Your task to perform on an android device: Go to Wikipedia Image 0: 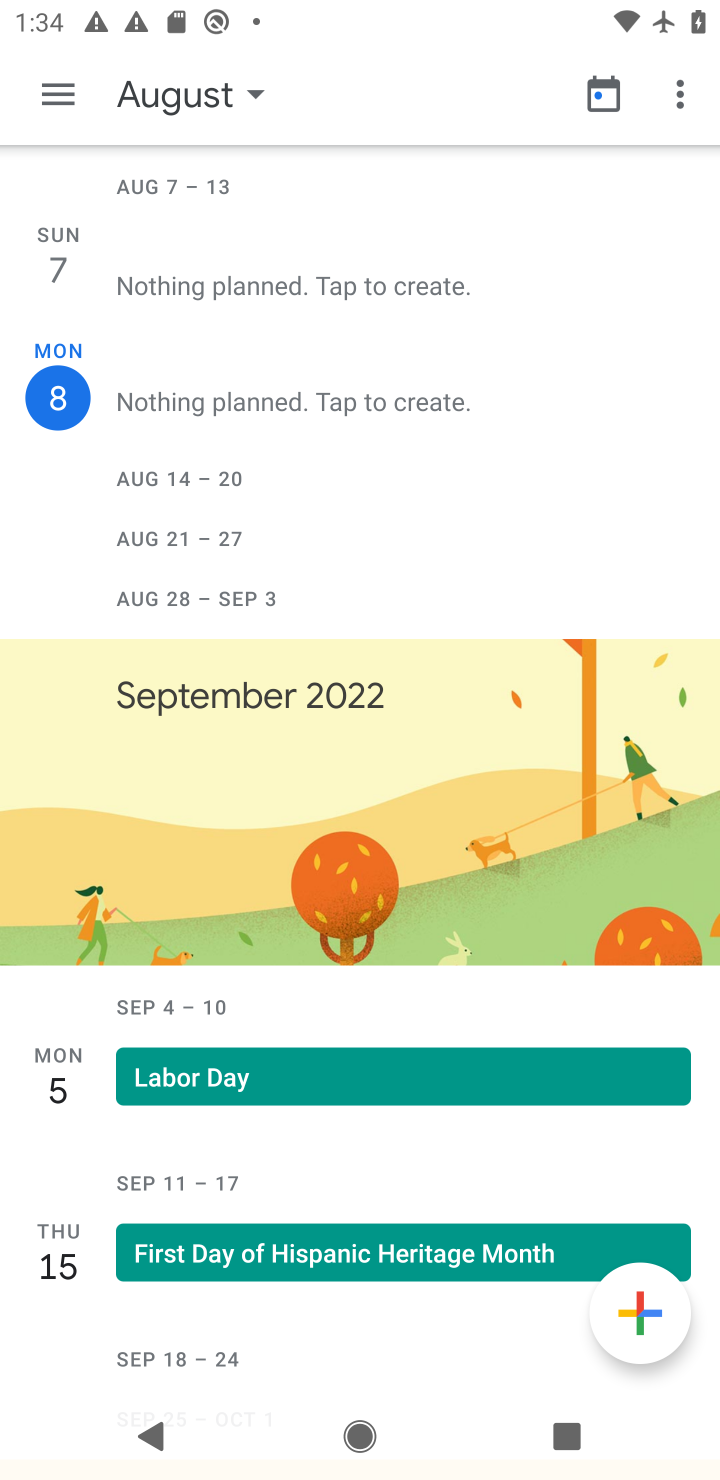
Step 0: press home button
Your task to perform on an android device: Go to Wikipedia Image 1: 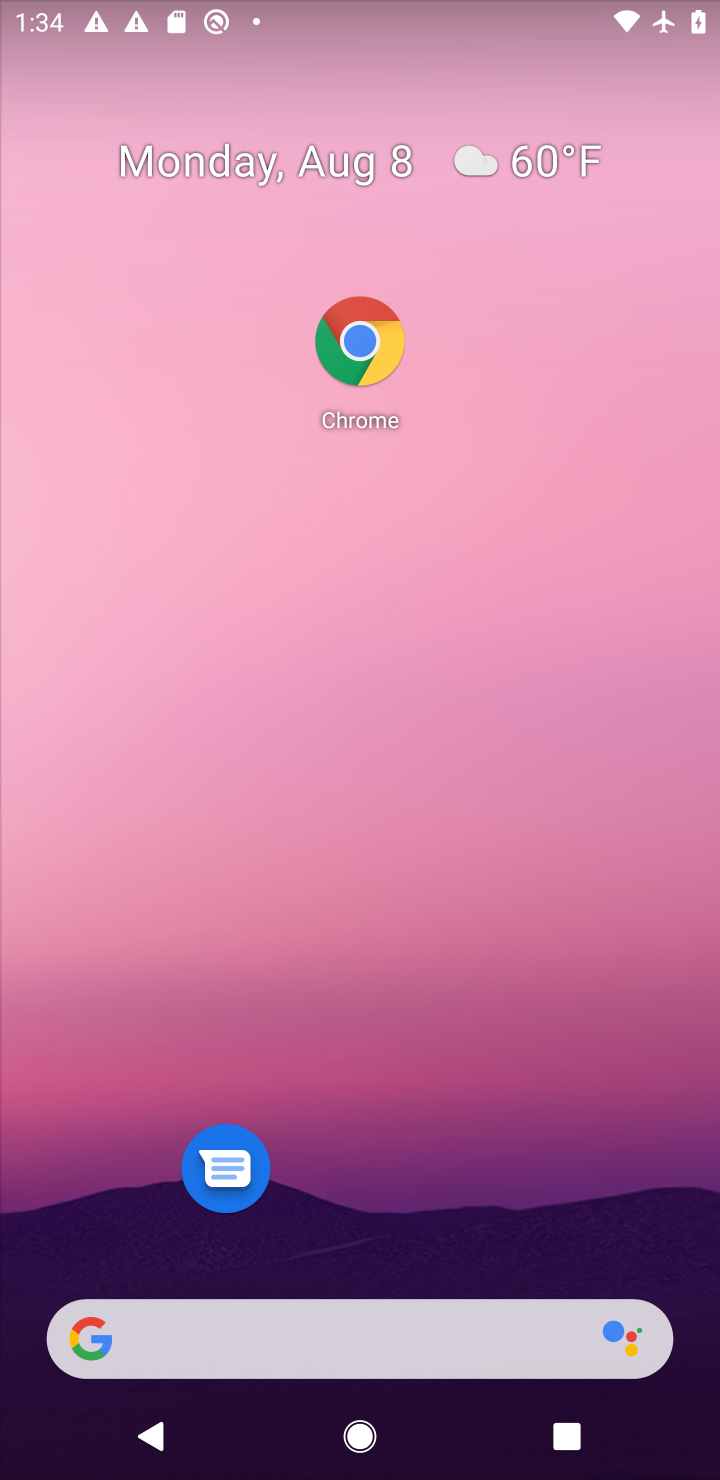
Step 1: drag from (488, 1228) to (558, 339)
Your task to perform on an android device: Go to Wikipedia Image 2: 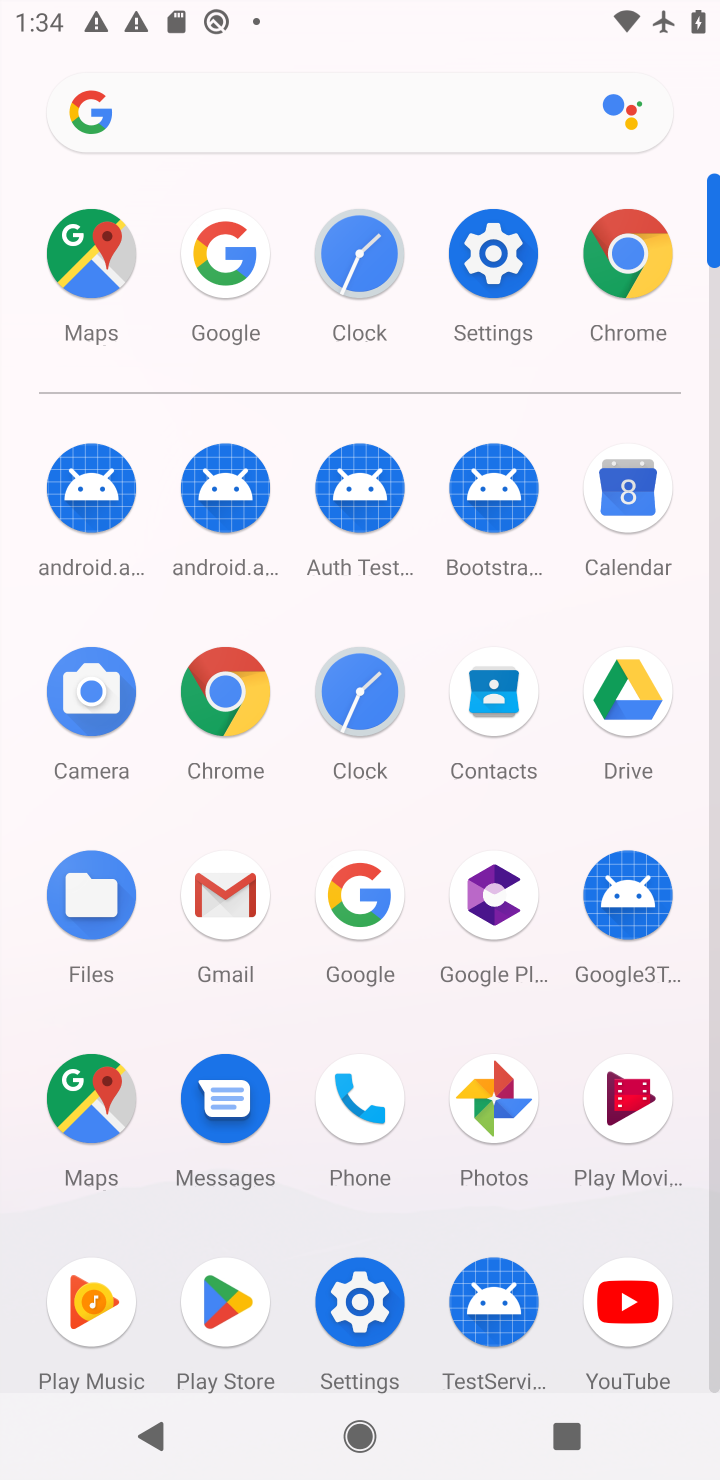
Step 2: click (491, 311)
Your task to perform on an android device: Go to Wikipedia Image 3: 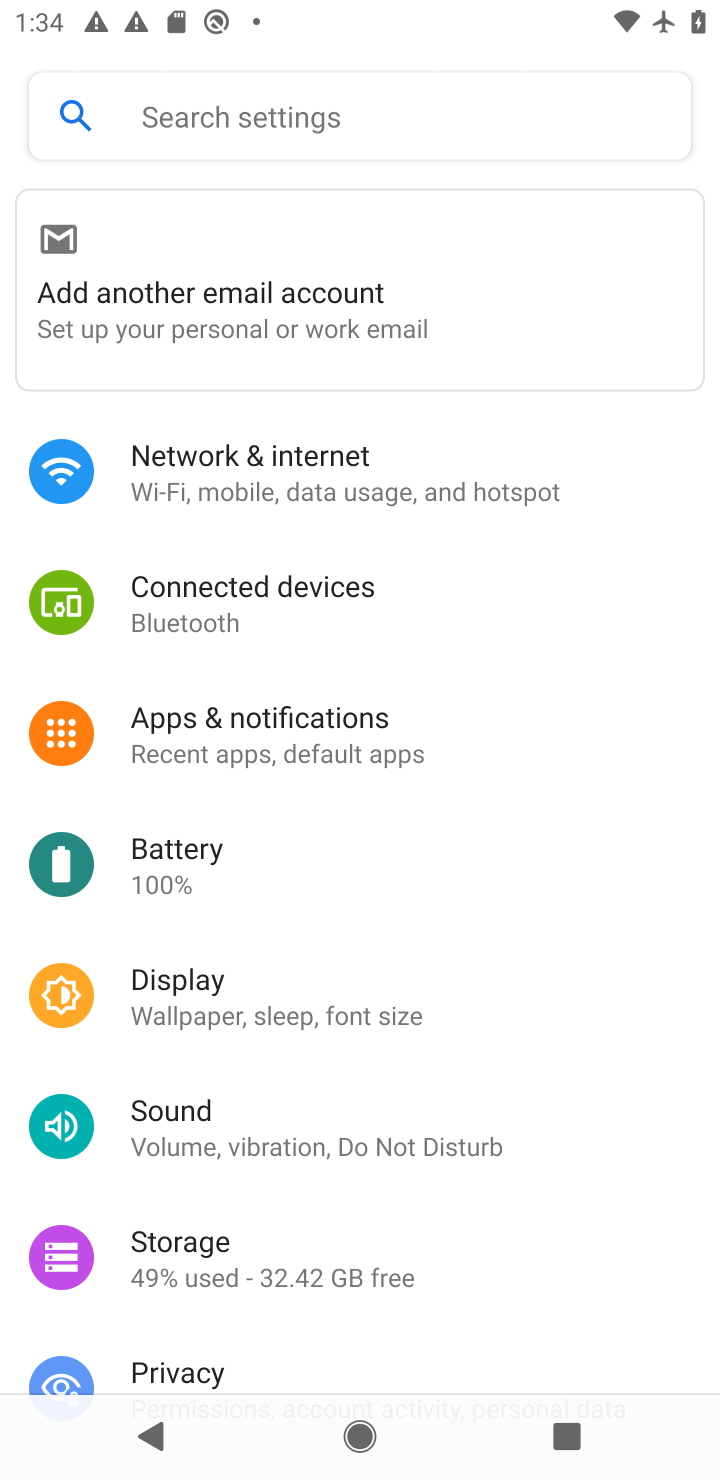
Step 3: task complete